Your task to perform on an android device: change the clock style Image 0: 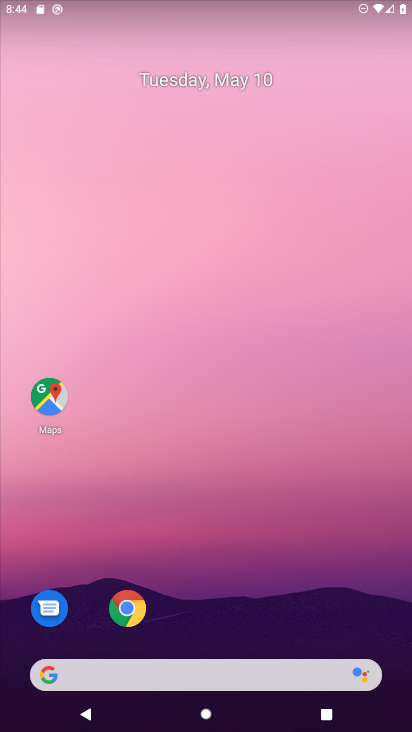
Step 0: drag from (323, 593) to (256, 51)
Your task to perform on an android device: change the clock style Image 1: 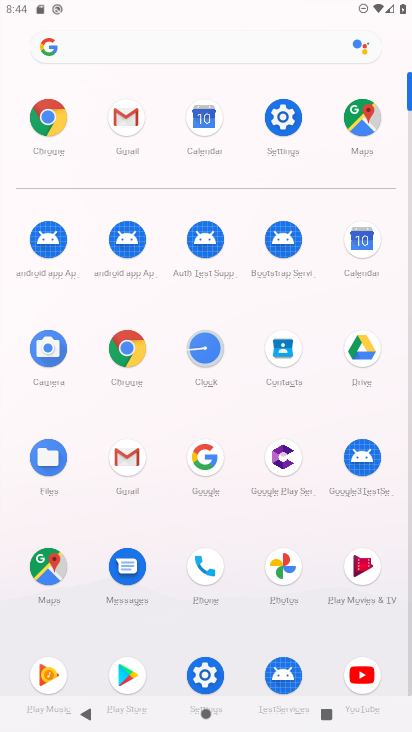
Step 1: click (280, 120)
Your task to perform on an android device: change the clock style Image 2: 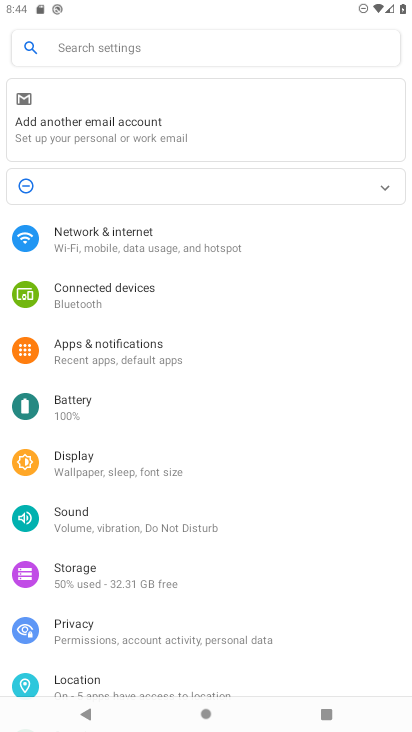
Step 2: press home button
Your task to perform on an android device: change the clock style Image 3: 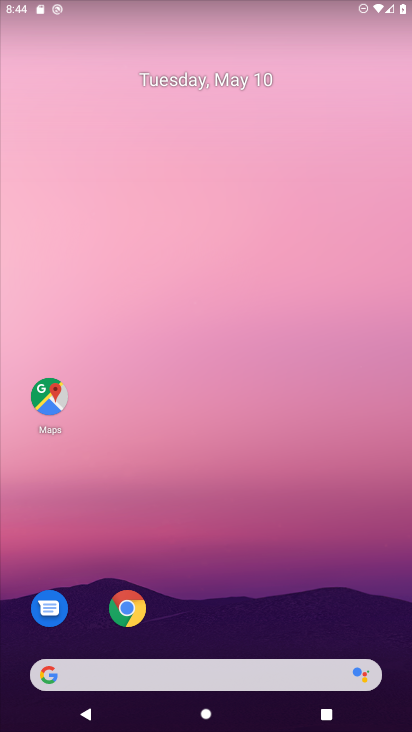
Step 3: drag from (328, 638) to (278, 34)
Your task to perform on an android device: change the clock style Image 4: 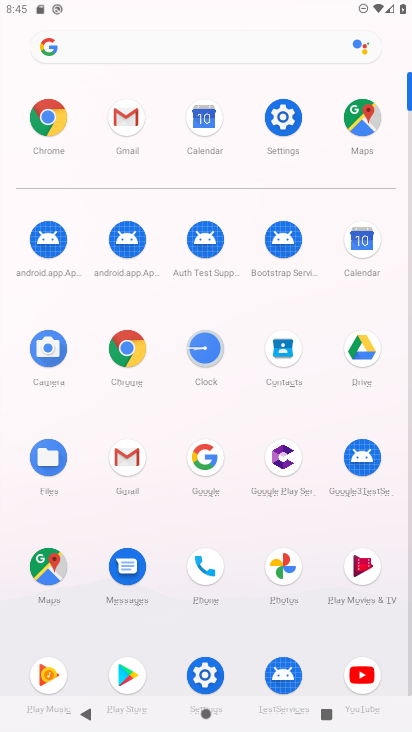
Step 4: click (212, 347)
Your task to perform on an android device: change the clock style Image 5: 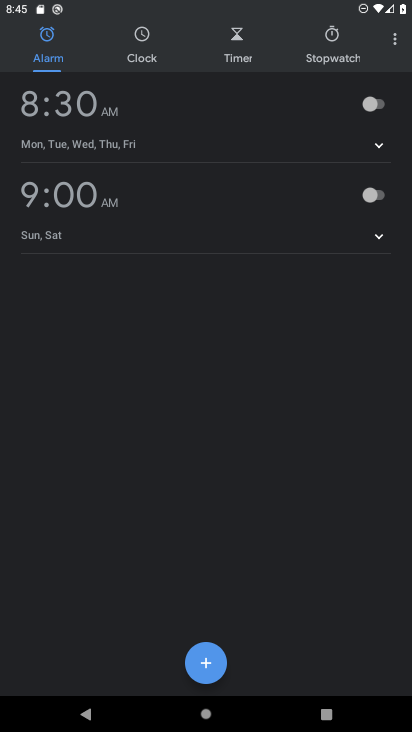
Step 5: click (389, 38)
Your task to perform on an android device: change the clock style Image 6: 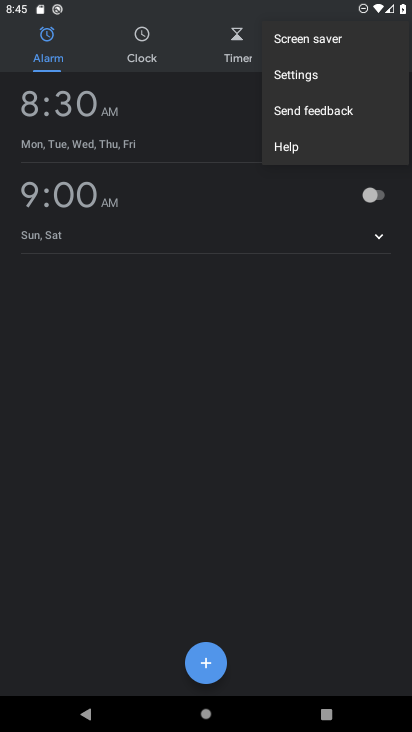
Step 6: click (338, 77)
Your task to perform on an android device: change the clock style Image 7: 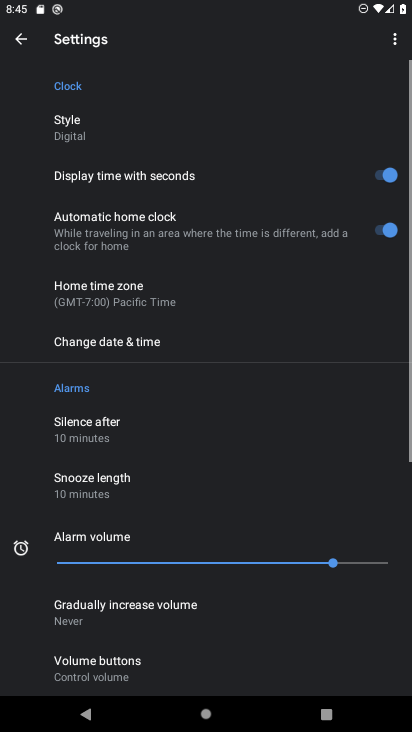
Step 7: click (87, 134)
Your task to perform on an android device: change the clock style Image 8: 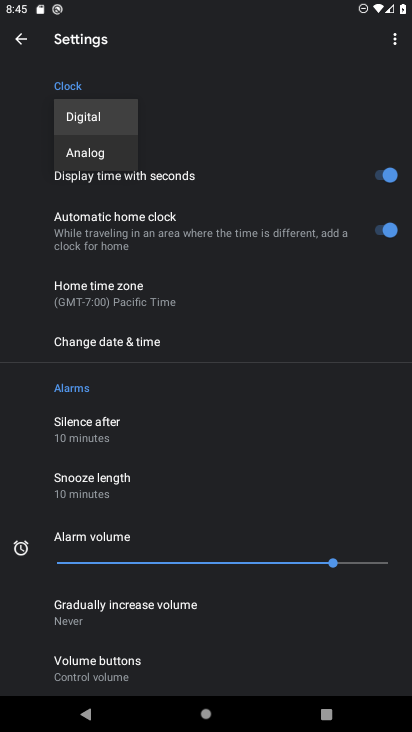
Step 8: click (98, 151)
Your task to perform on an android device: change the clock style Image 9: 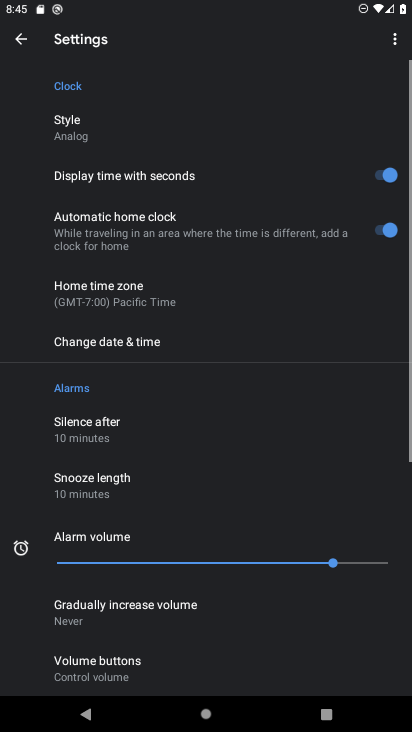
Step 9: task complete